Your task to perform on an android device: visit the assistant section in the google photos Image 0: 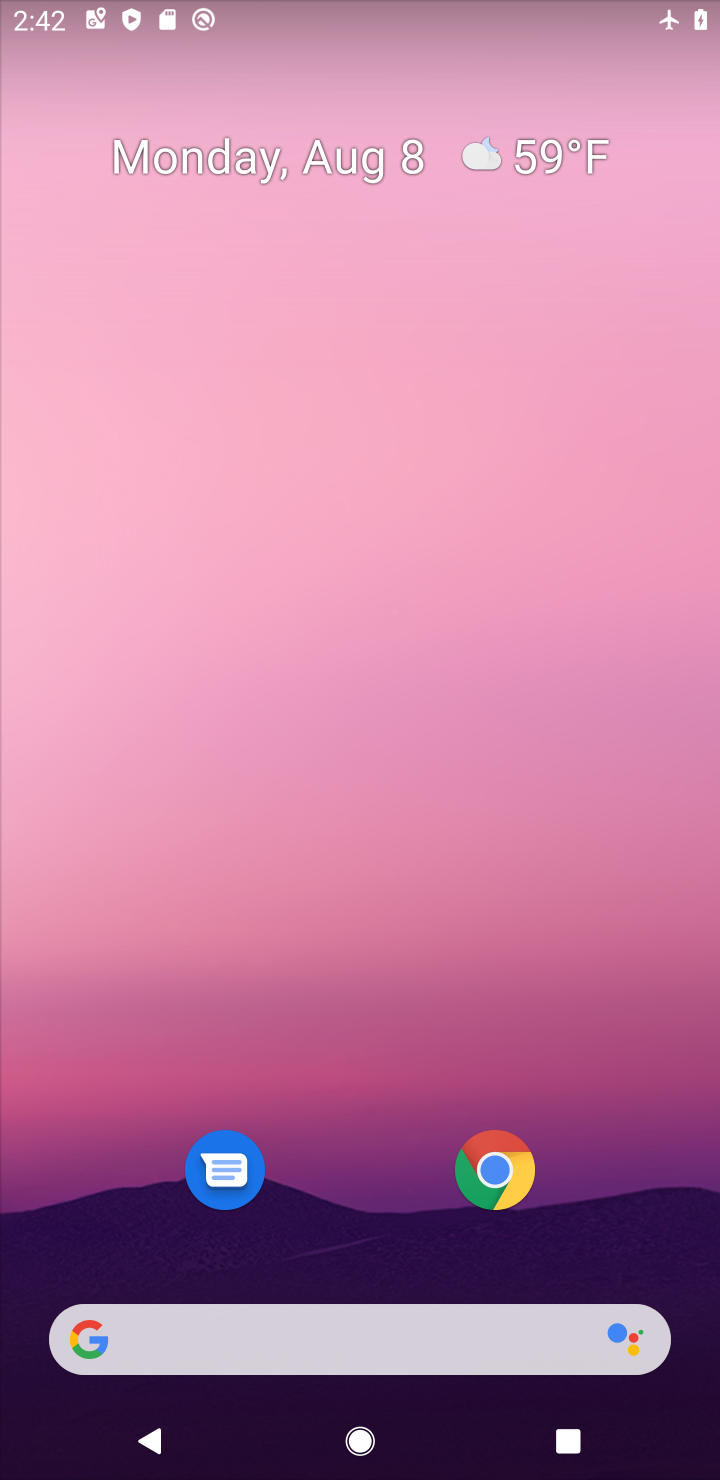
Step 0: drag from (390, 891) to (390, 396)
Your task to perform on an android device: visit the assistant section in the google photos Image 1: 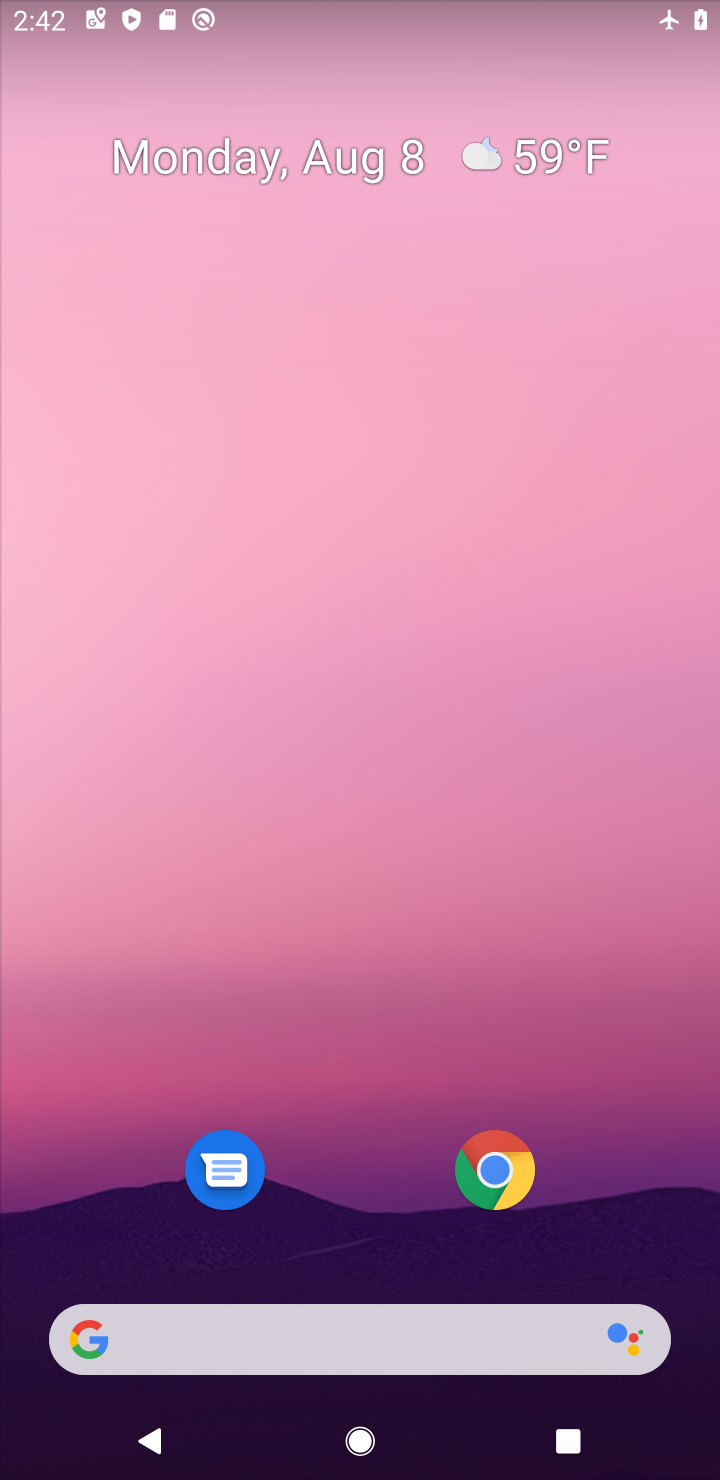
Step 1: drag from (360, 1157) to (374, 331)
Your task to perform on an android device: visit the assistant section in the google photos Image 2: 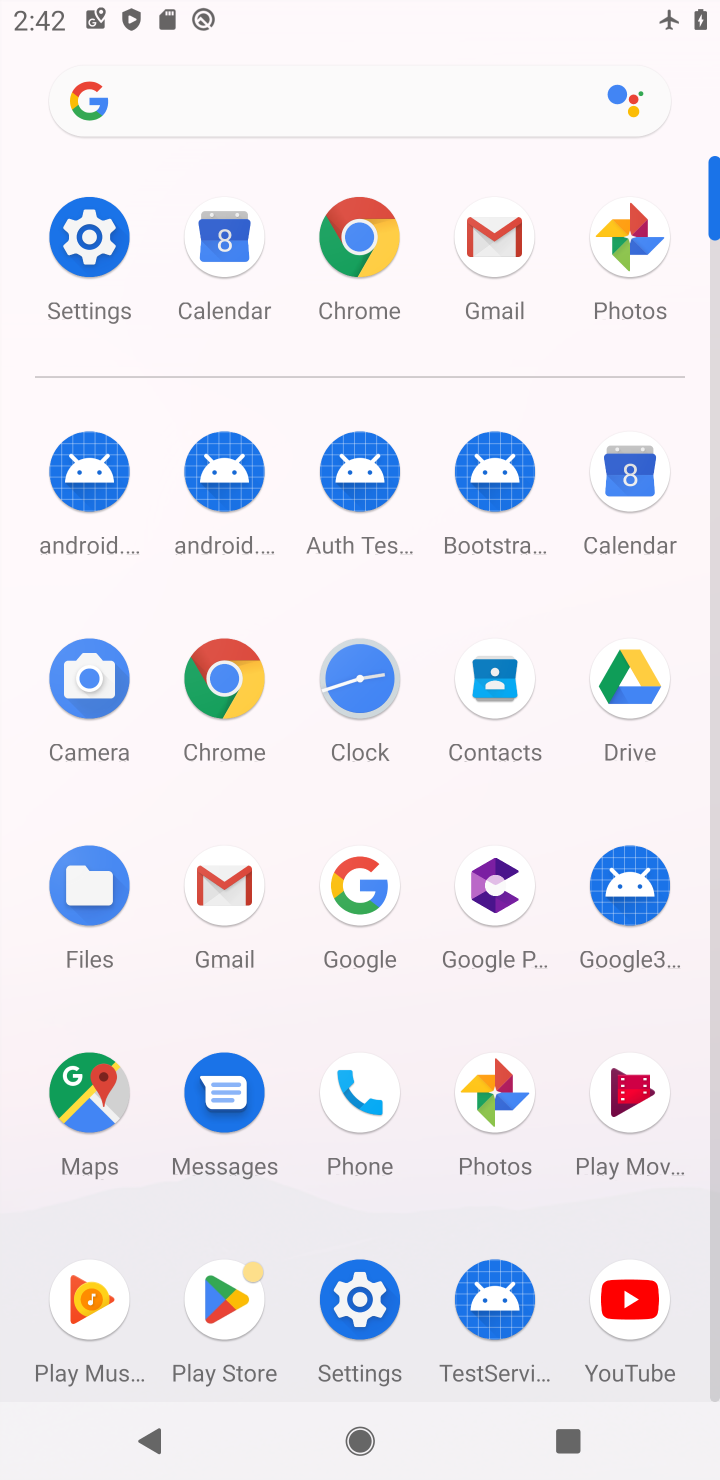
Step 2: click (483, 1088)
Your task to perform on an android device: visit the assistant section in the google photos Image 3: 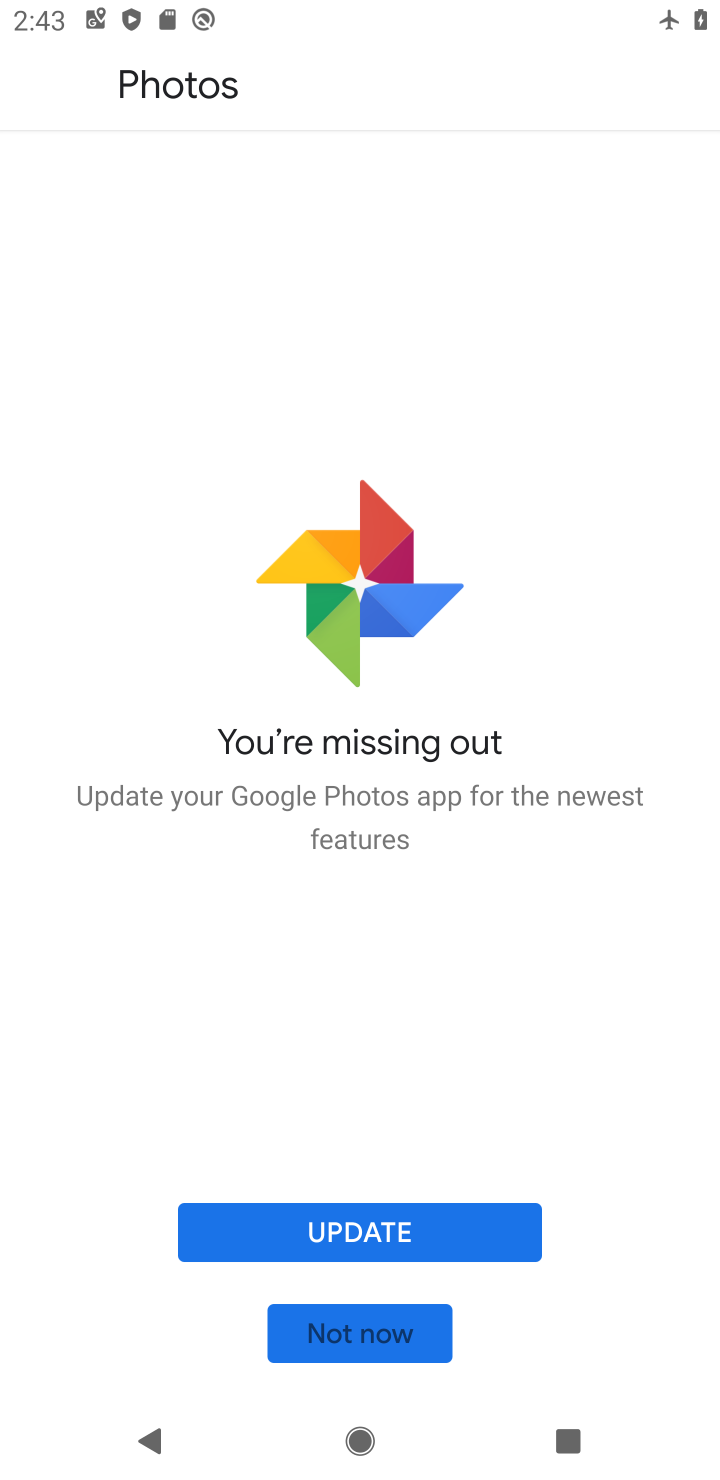
Step 3: click (356, 1315)
Your task to perform on an android device: visit the assistant section in the google photos Image 4: 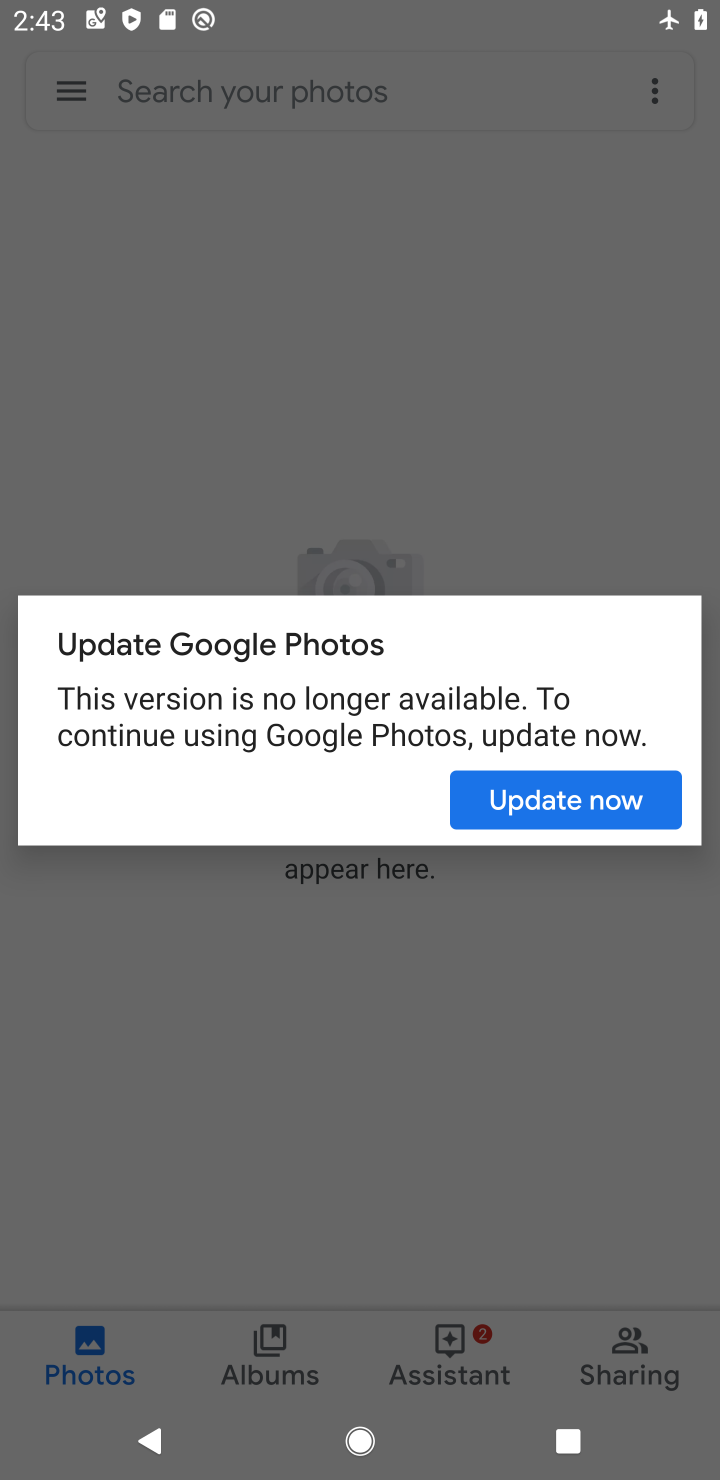
Step 4: click (192, 1324)
Your task to perform on an android device: visit the assistant section in the google photos Image 5: 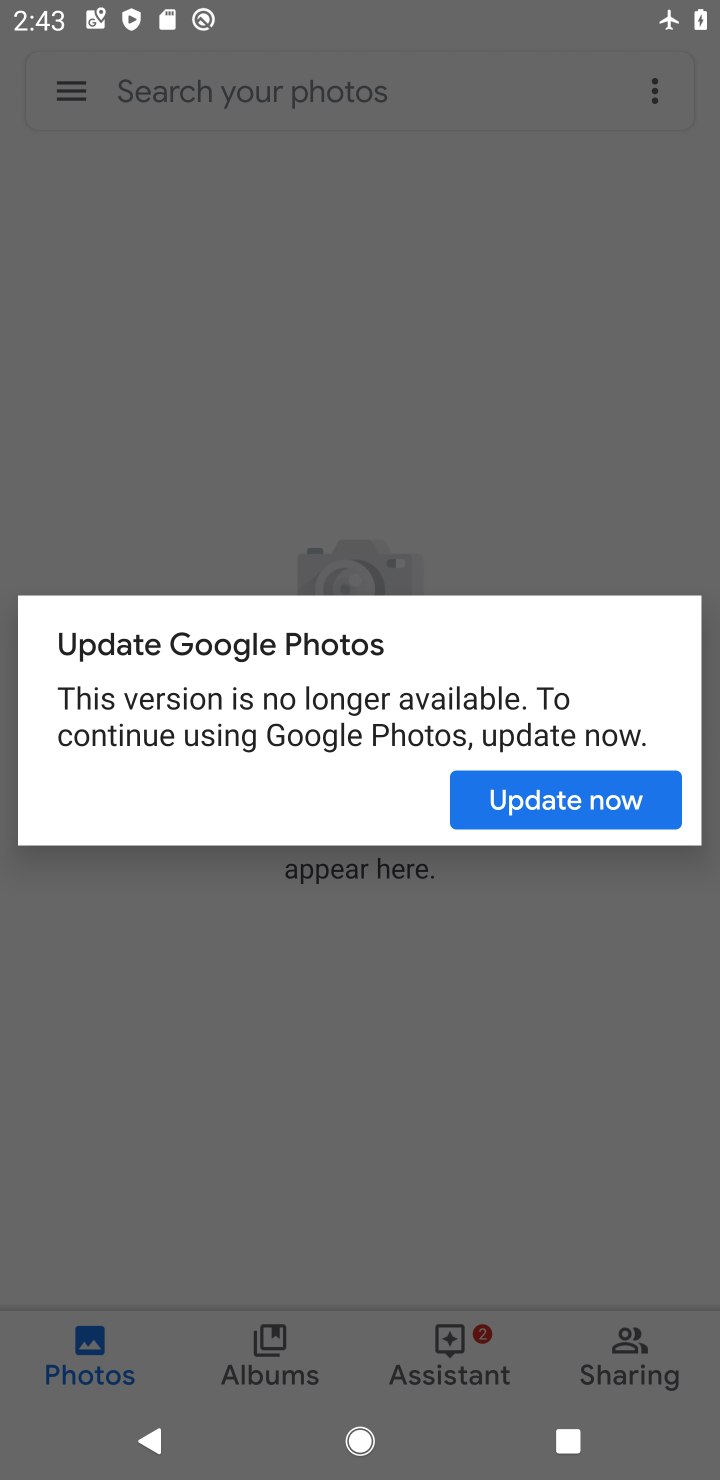
Step 5: click (491, 1339)
Your task to perform on an android device: visit the assistant section in the google photos Image 6: 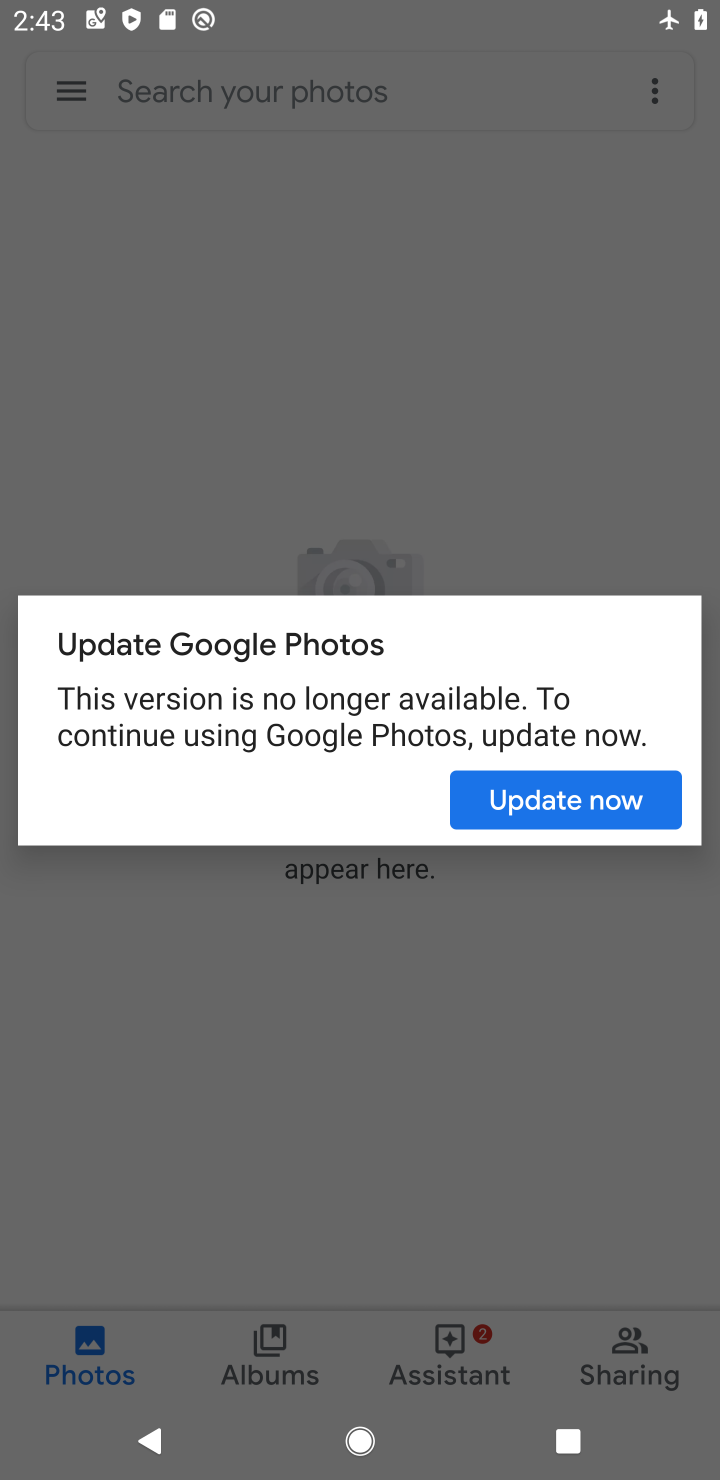
Step 6: click (491, 1339)
Your task to perform on an android device: visit the assistant section in the google photos Image 7: 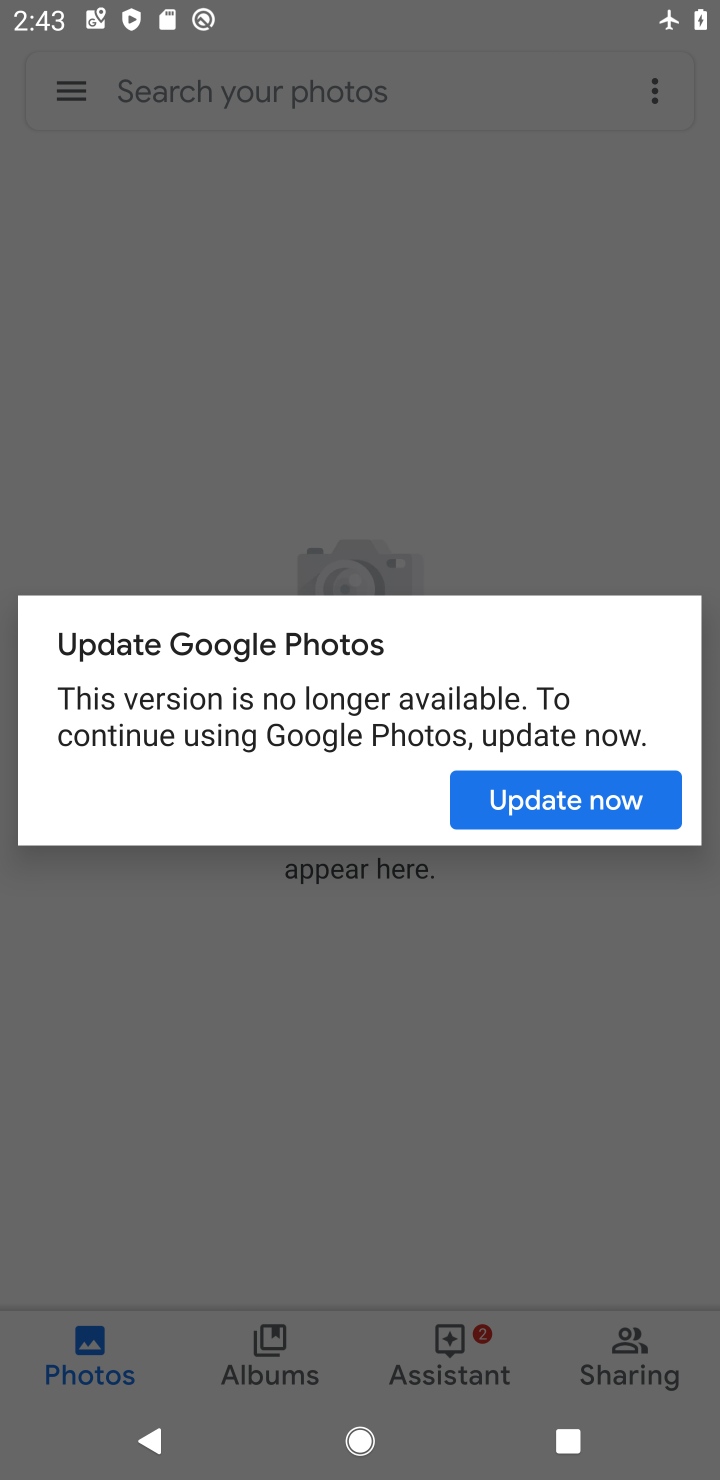
Step 7: click (491, 1339)
Your task to perform on an android device: visit the assistant section in the google photos Image 8: 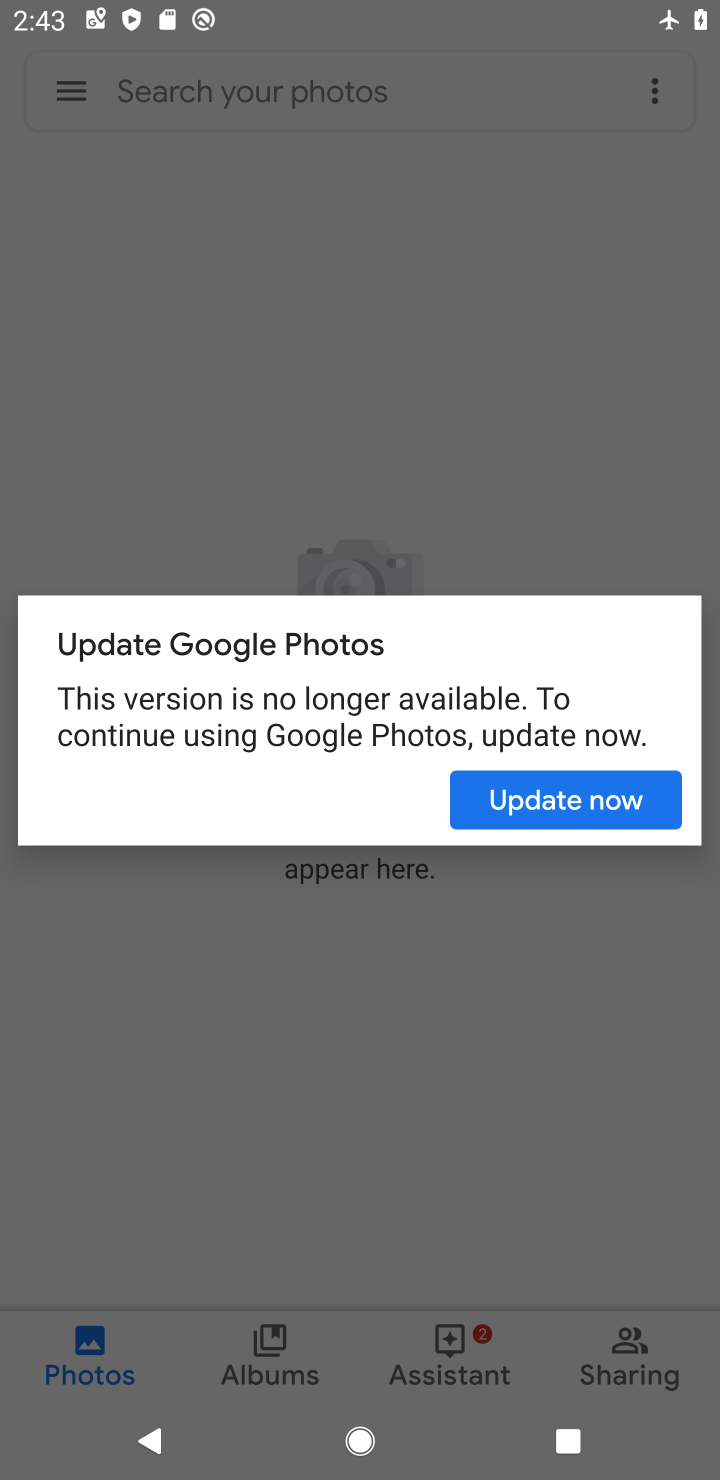
Step 8: task complete